Your task to perform on an android device: toggle notification dots Image 0: 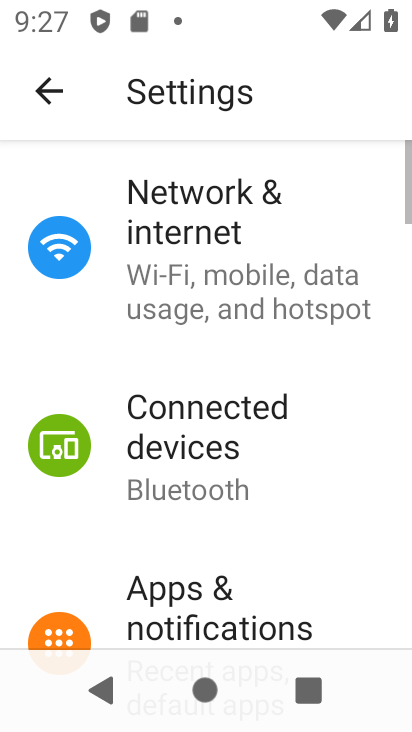
Step 0: click (185, 605)
Your task to perform on an android device: toggle notification dots Image 1: 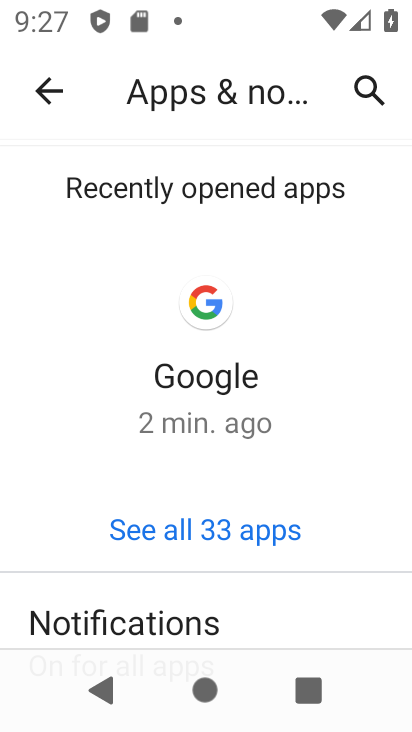
Step 1: drag from (278, 614) to (257, 236)
Your task to perform on an android device: toggle notification dots Image 2: 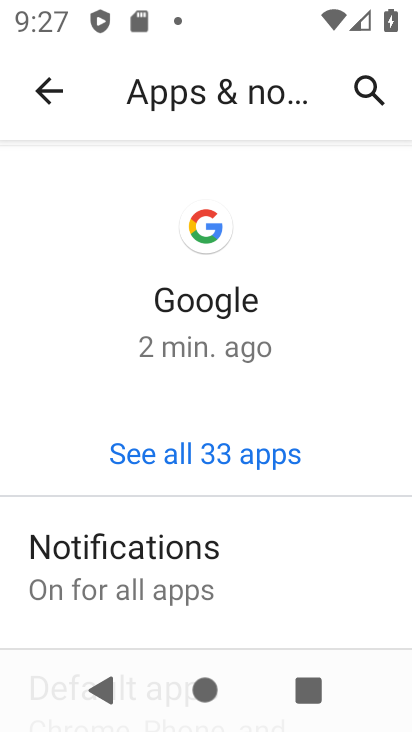
Step 2: click (132, 543)
Your task to perform on an android device: toggle notification dots Image 3: 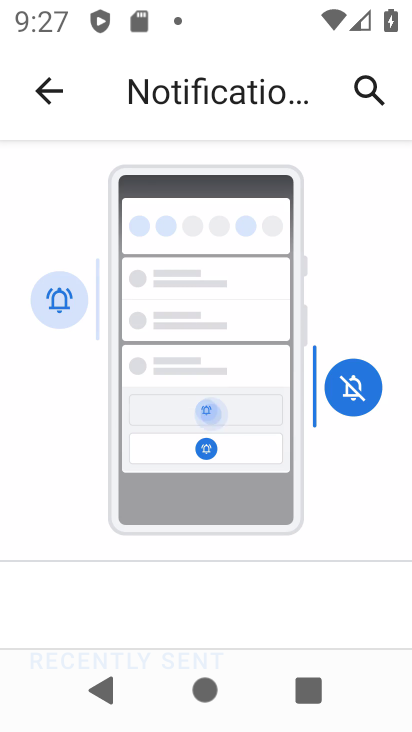
Step 3: drag from (200, 626) to (253, 238)
Your task to perform on an android device: toggle notification dots Image 4: 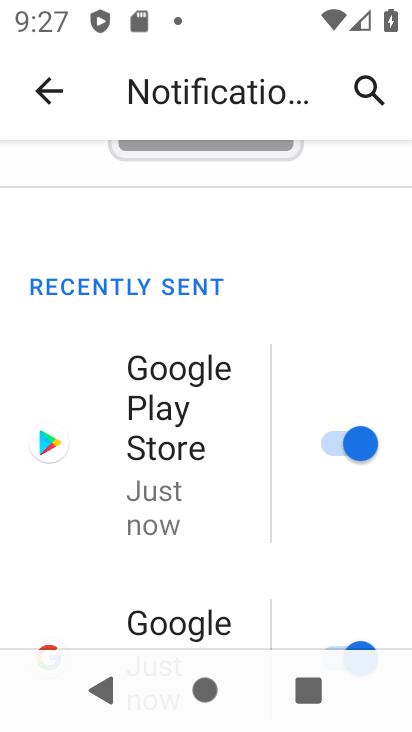
Step 4: drag from (313, 456) to (320, 180)
Your task to perform on an android device: toggle notification dots Image 5: 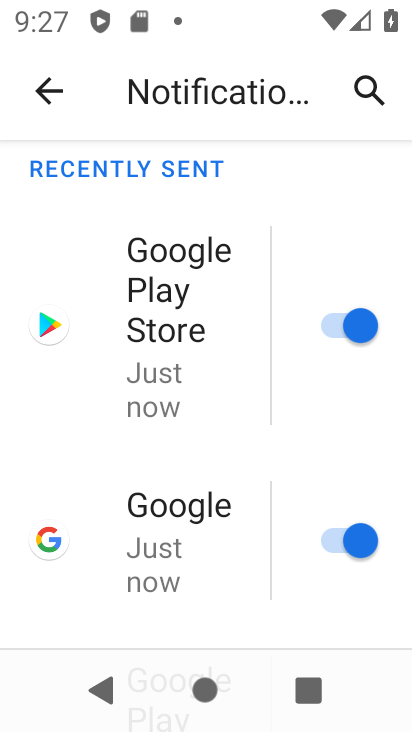
Step 5: drag from (273, 507) to (273, 237)
Your task to perform on an android device: toggle notification dots Image 6: 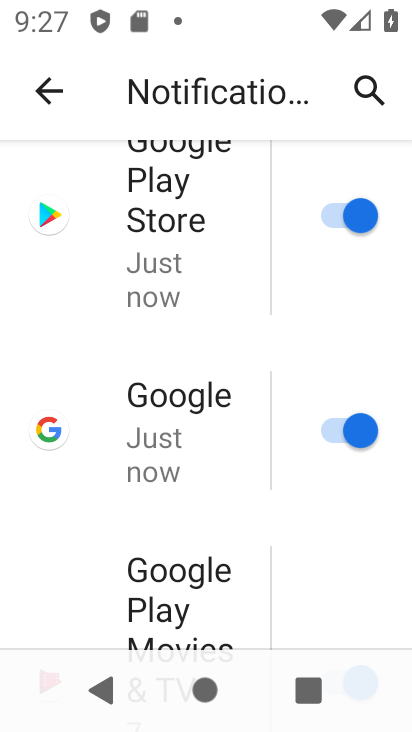
Step 6: drag from (304, 594) to (322, 214)
Your task to perform on an android device: toggle notification dots Image 7: 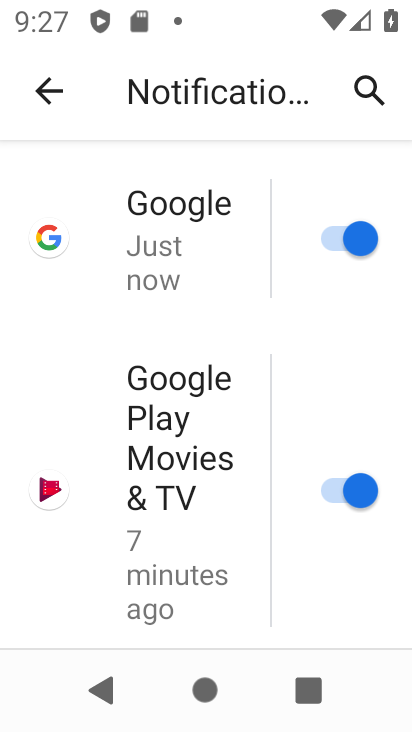
Step 7: drag from (316, 602) to (318, 309)
Your task to perform on an android device: toggle notification dots Image 8: 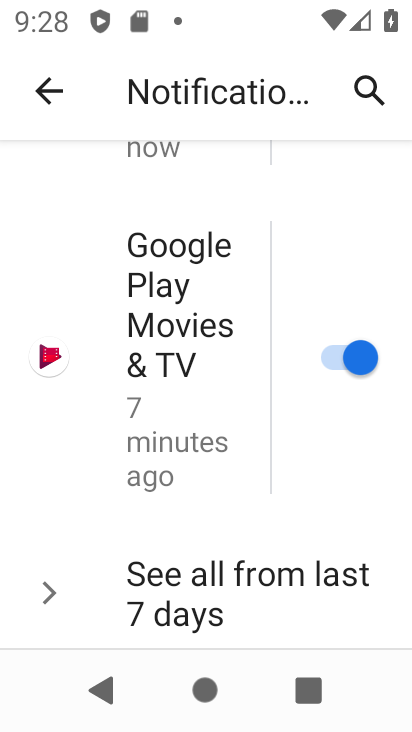
Step 8: drag from (309, 614) to (342, 288)
Your task to perform on an android device: toggle notification dots Image 9: 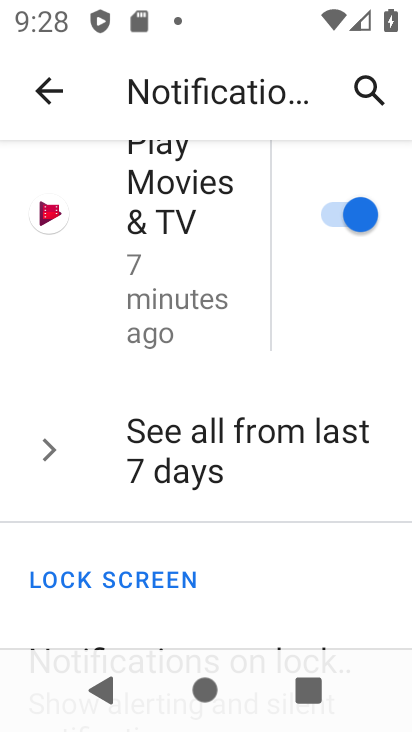
Step 9: drag from (303, 489) to (304, 248)
Your task to perform on an android device: toggle notification dots Image 10: 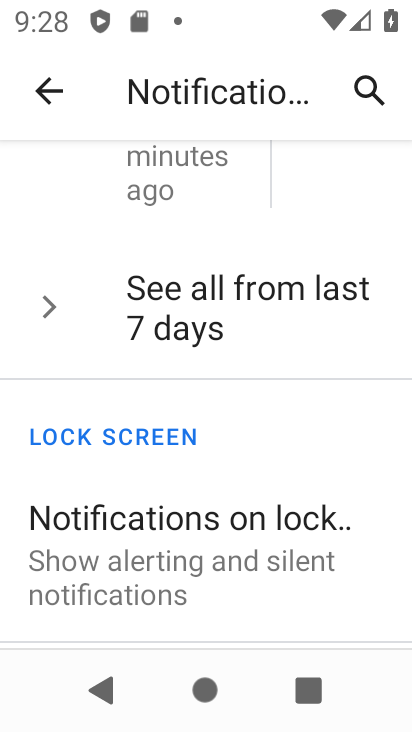
Step 10: drag from (234, 601) to (279, 280)
Your task to perform on an android device: toggle notification dots Image 11: 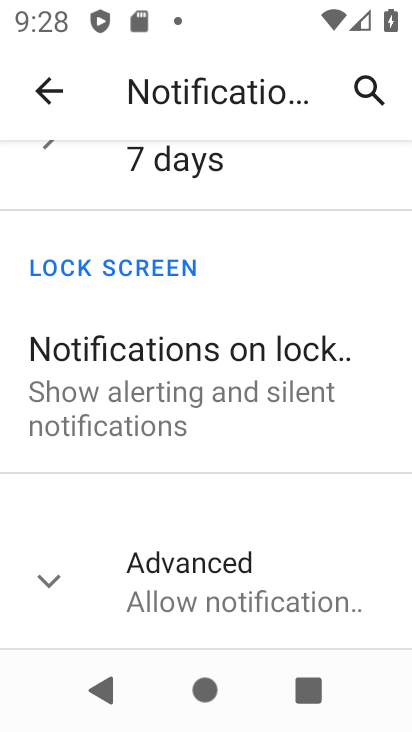
Step 11: click (222, 589)
Your task to perform on an android device: toggle notification dots Image 12: 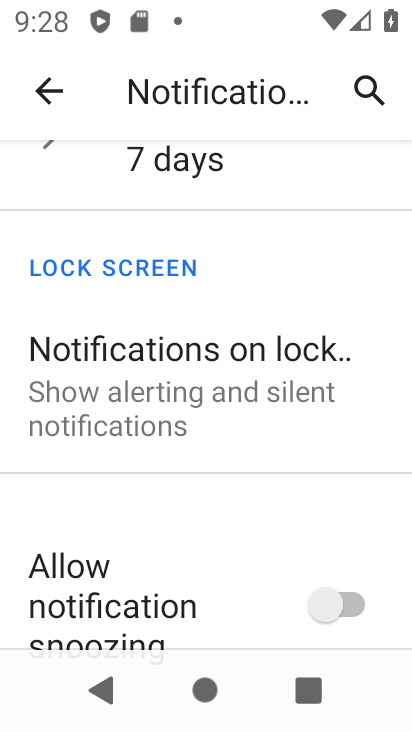
Step 12: drag from (213, 629) to (246, 332)
Your task to perform on an android device: toggle notification dots Image 13: 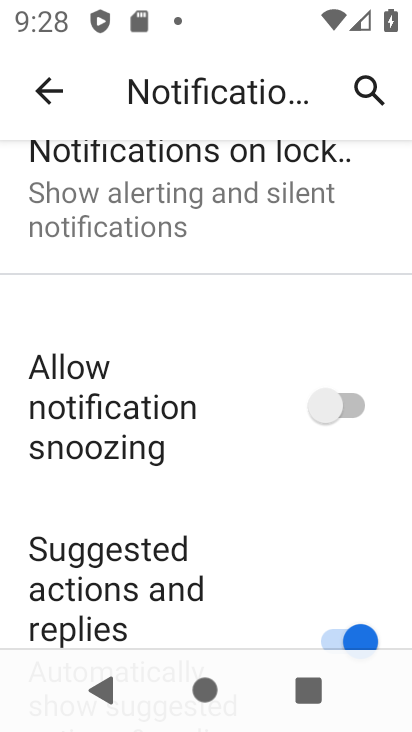
Step 13: drag from (245, 618) to (264, 314)
Your task to perform on an android device: toggle notification dots Image 14: 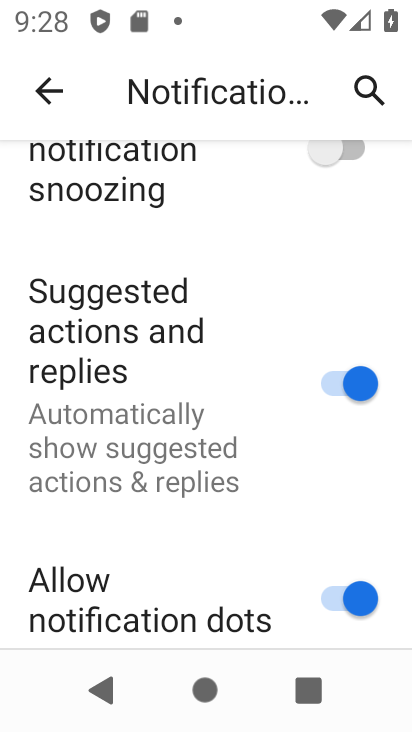
Step 14: click (335, 594)
Your task to perform on an android device: toggle notification dots Image 15: 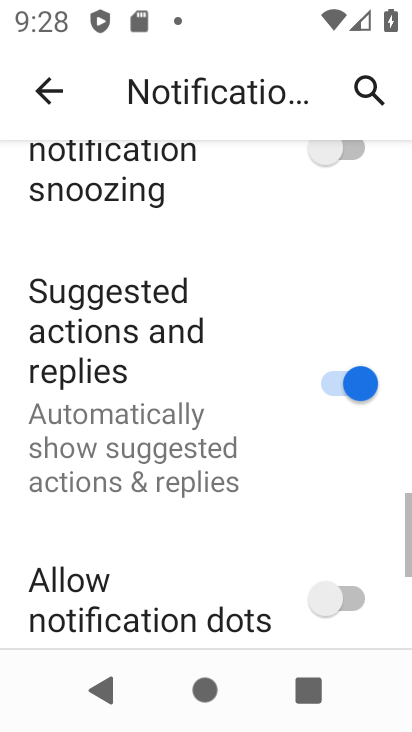
Step 15: task complete